Your task to perform on an android device: Open calendar and show me the fourth week of next month Image 0: 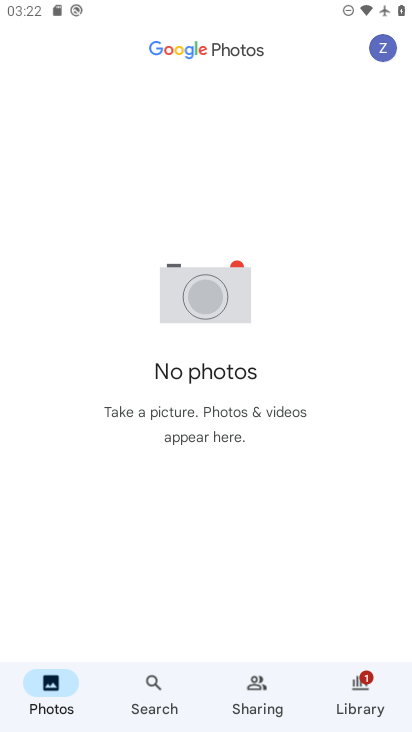
Step 0: press home button
Your task to perform on an android device: Open calendar and show me the fourth week of next month Image 1: 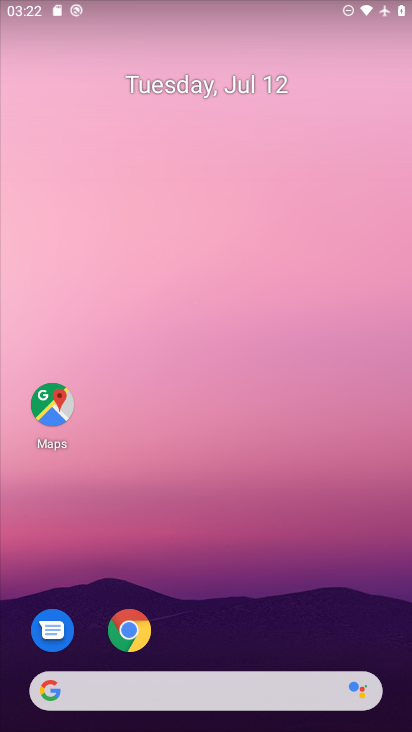
Step 1: drag from (366, 609) to (256, 199)
Your task to perform on an android device: Open calendar and show me the fourth week of next month Image 2: 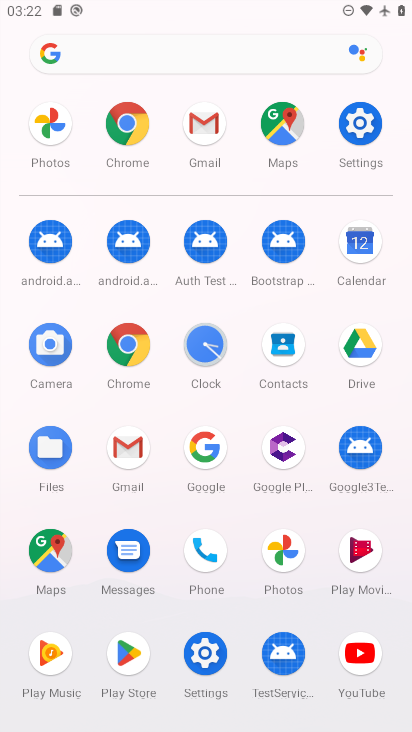
Step 2: click (357, 240)
Your task to perform on an android device: Open calendar and show me the fourth week of next month Image 3: 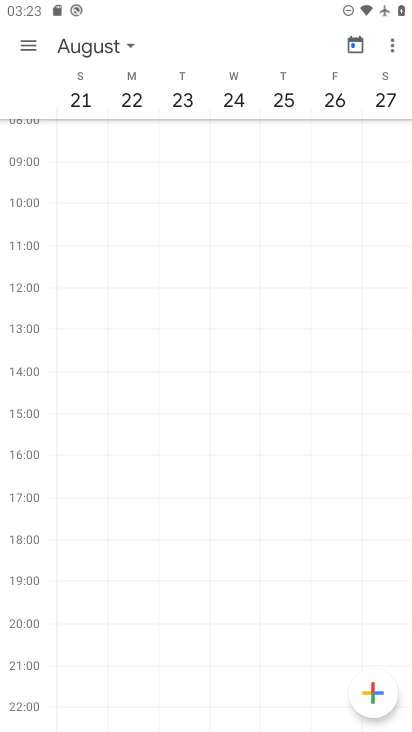
Step 3: click (131, 41)
Your task to perform on an android device: Open calendar and show me the fourth week of next month Image 4: 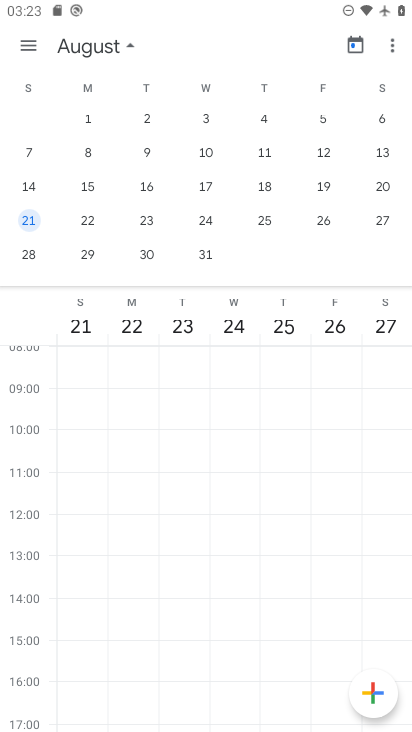
Step 4: click (30, 252)
Your task to perform on an android device: Open calendar and show me the fourth week of next month Image 5: 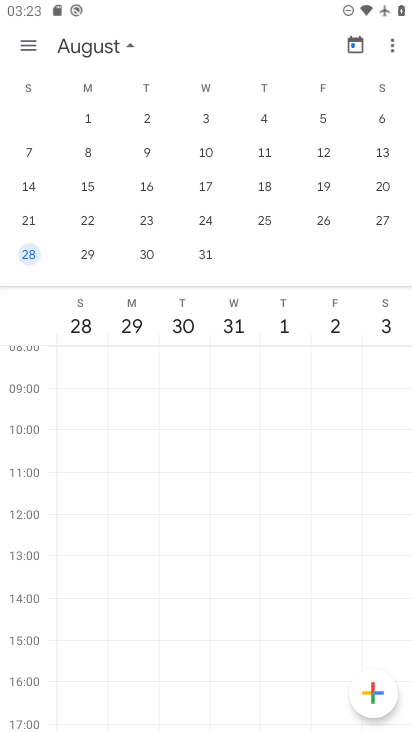
Step 5: task complete